Your task to perform on an android device: Show me the alarms in the clock app Image 0: 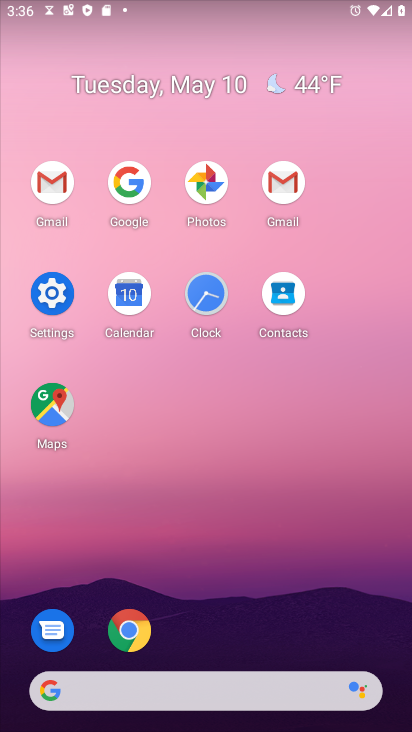
Step 0: click (193, 310)
Your task to perform on an android device: Show me the alarms in the clock app Image 1: 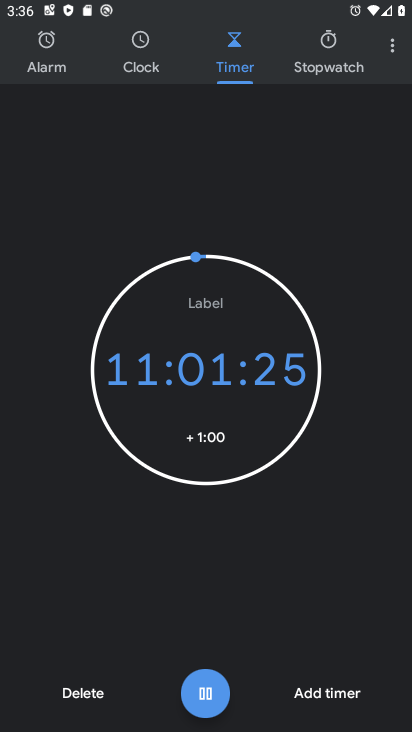
Step 1: click (42, 63)
Your task to perform on an android device: Show me the alarms in the clock app Image 2: 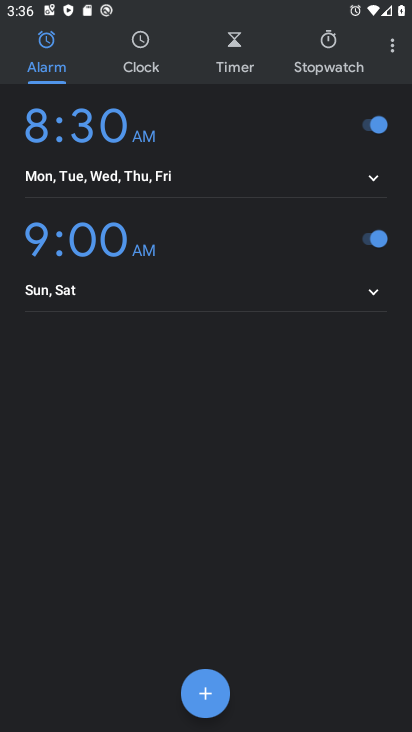
Step 2: task complete